Your task to perform on an android device: Show me recent news Image 0: 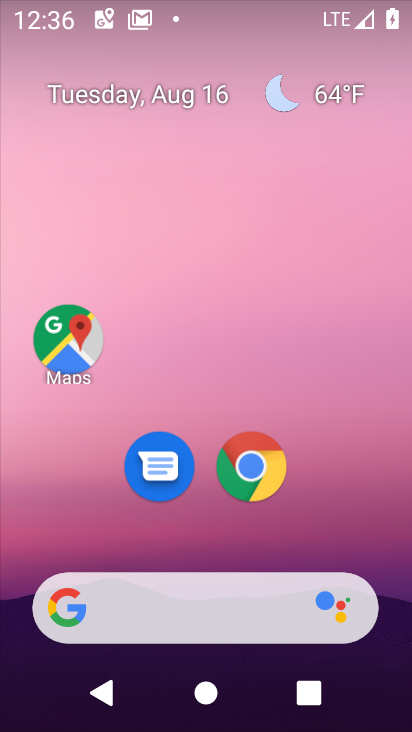
Step 0: drag from (255, 537) to (255, 191)
Your task to perform on an android device: Show me recent news Image 1: 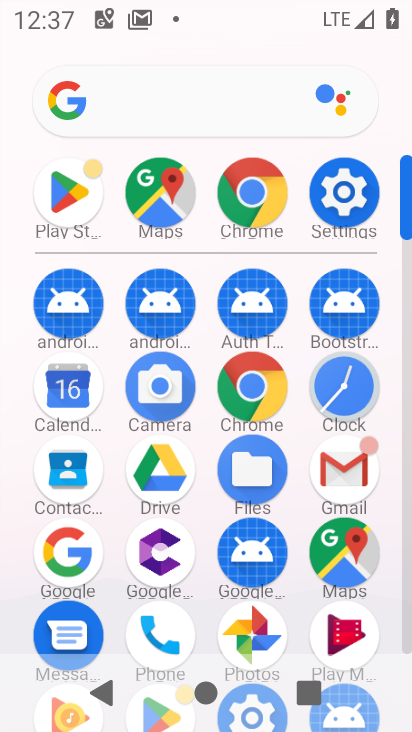
Step 1: click (249, 383)
Your task to perform on an android device: Show me recent news Image 2: 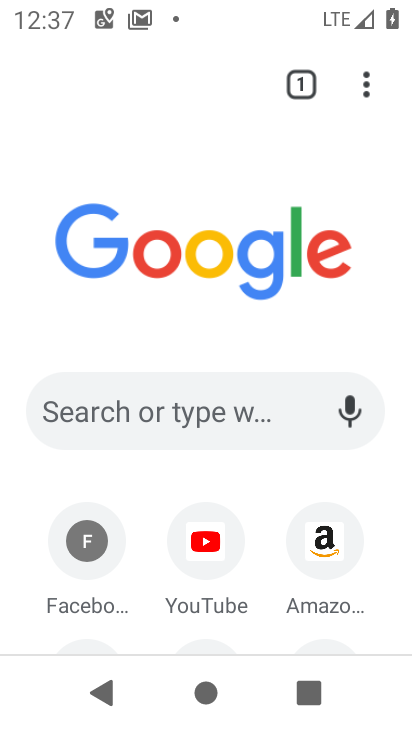
Step 2: click (187, 430)
Your task to perform on an android device: Show me recent news Image 3: 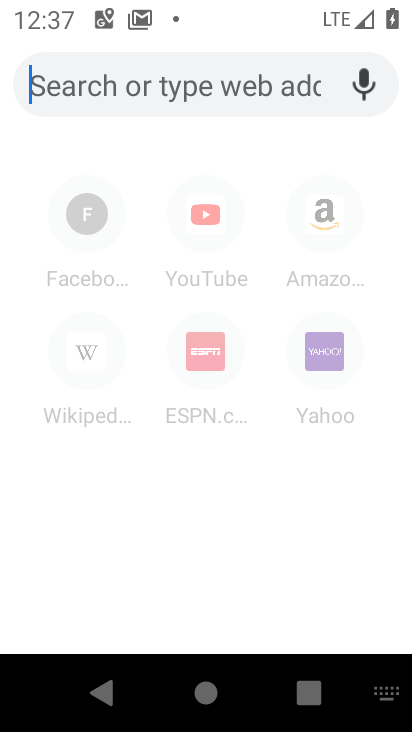
Step 3: type "Show me recent news "
Your task to perform on an android device: Show me recent news Image 4: 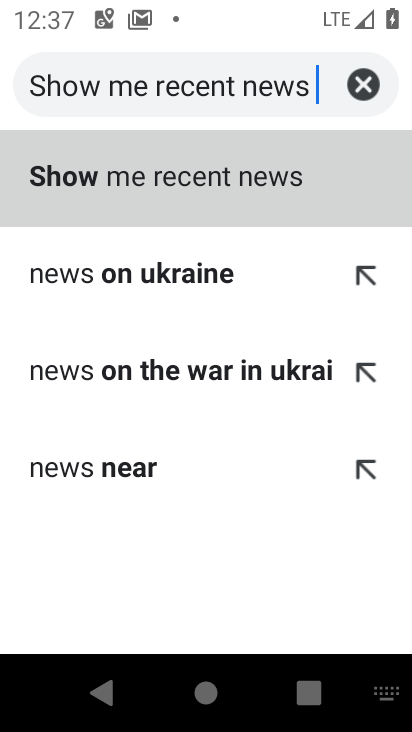
Step 4: click (132, 197)
Your task to perform on an android device: Show me recent news Image 5: 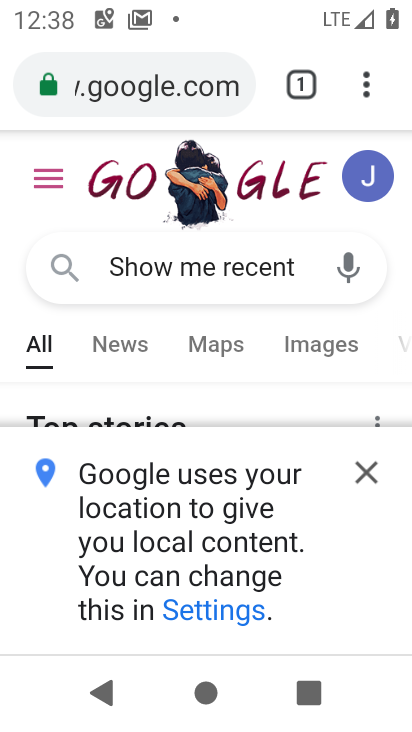
Step 5: task complete